Your task to perform on an android device: open sync settings in chrome Image 0: 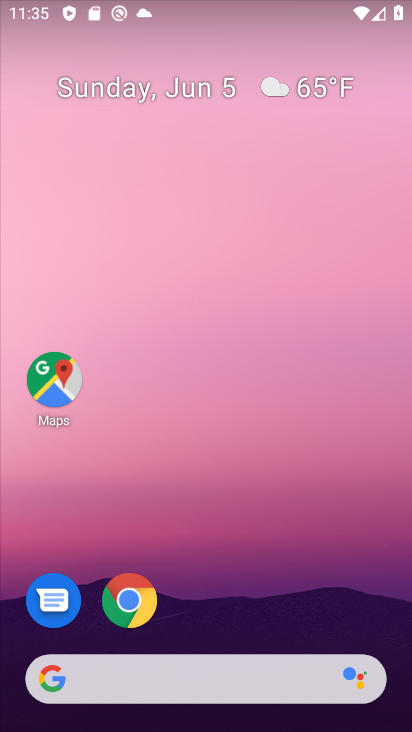
Step 0: click (131, 602)
Your task to perform on an android device: open sync settings in chrome Image 1: 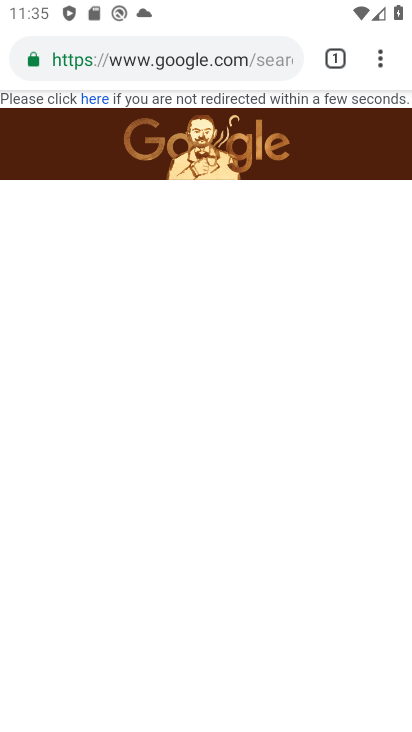
Step 1: click (381, 57)
Your task to perform on an android device: open sync settings in chrome Image 2: 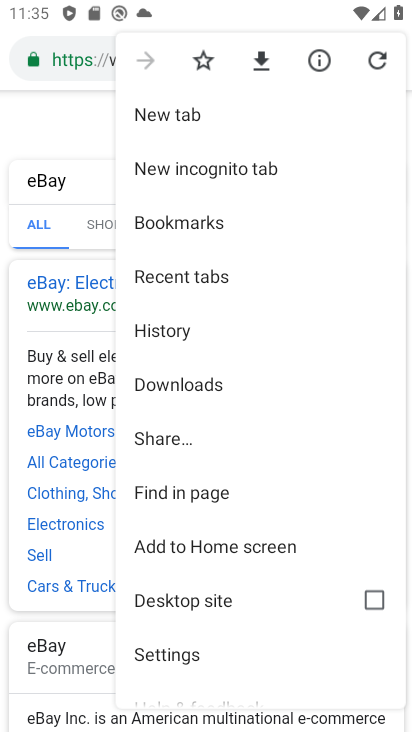
Step 2: click (151, 649)
Your task to perform on an android device: open sync settings in chrome Image 3: 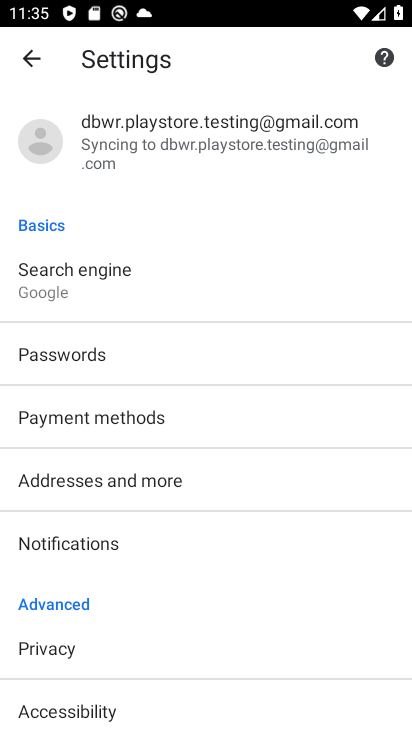
Step 3: drag from (183, 664) to (173, 356)
Your task to perform on an android device: open sync settings in chrome Image 4: 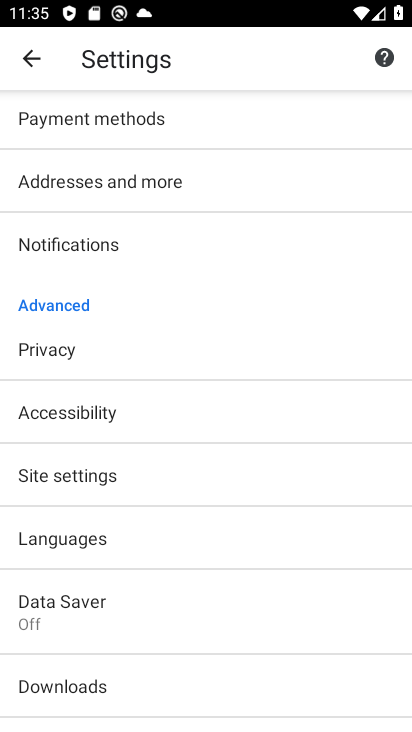
Step 4: click (58, 464)
Your task to perform on an android device: open sync settings in chrome Image 5: 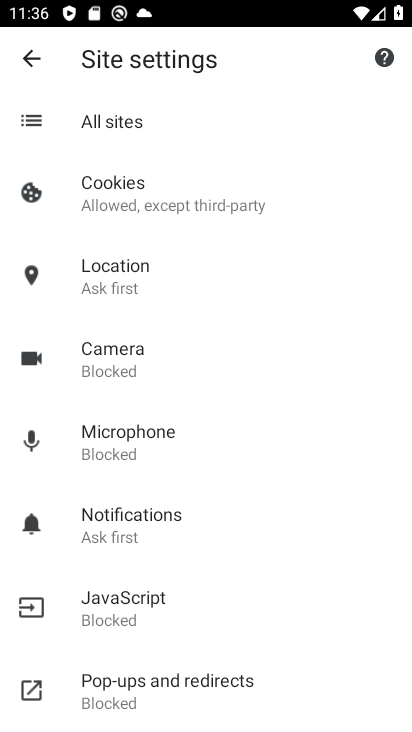
Step 5: drag from (168, 664) to (180, 363)
Your task to perform on an android device: open sync settings in chrome Image 6: 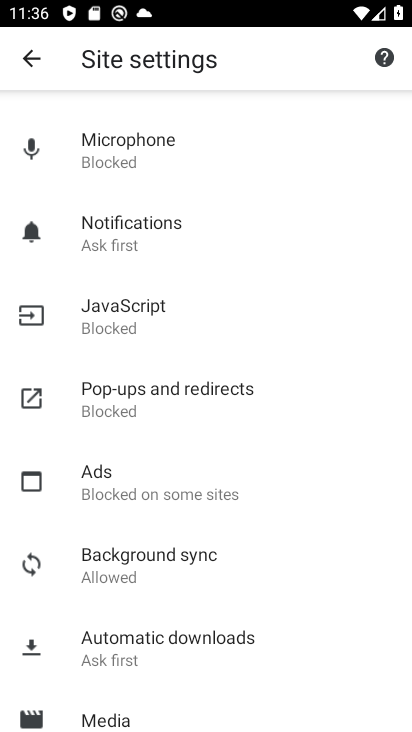
Step 6: click (133, 549)
Your task to perform on an android device: open sync settings in chrome Image 7: 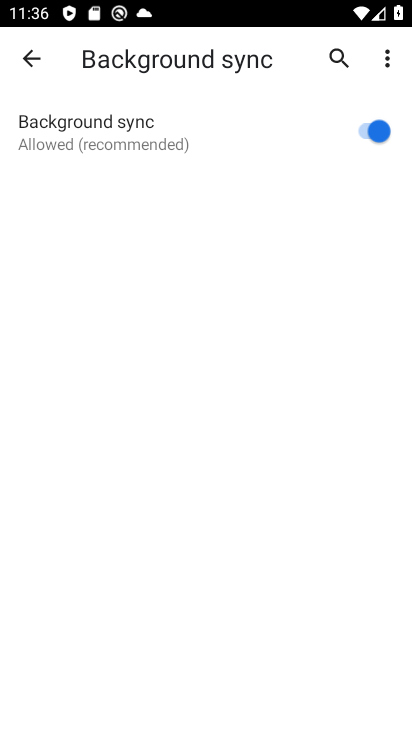
Step 7: click (116, 131)
Your task to perform on an android device: open sync settings in chrome Image 8: 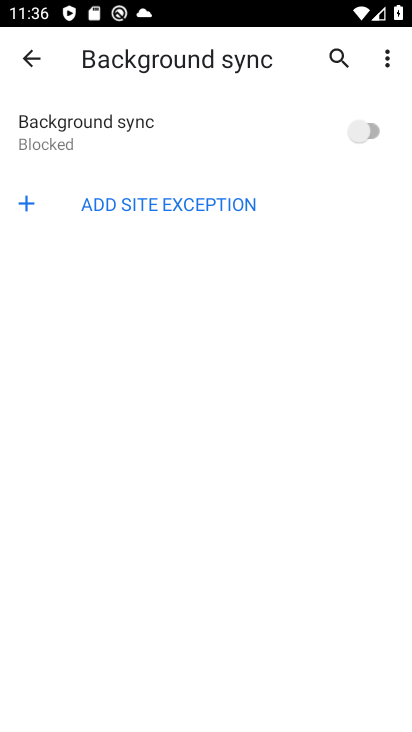
Step 8: click (367, 124)
Your task to perform on an android device: open sync settings in chrome Image 9: 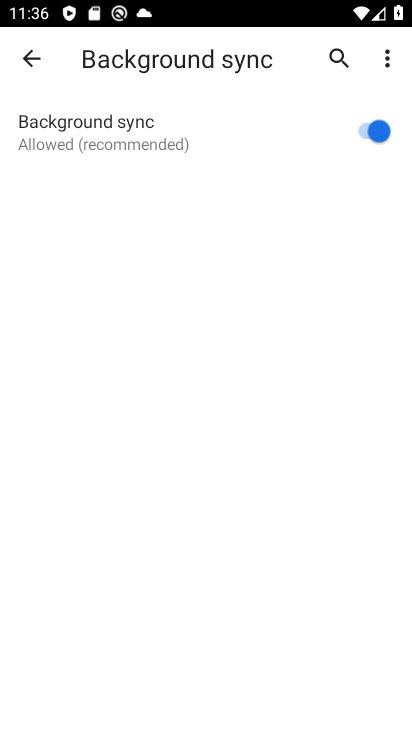
Step 9: task complete